Your task to perform on an android device: turn on the 24-hour format for clock Image 0: 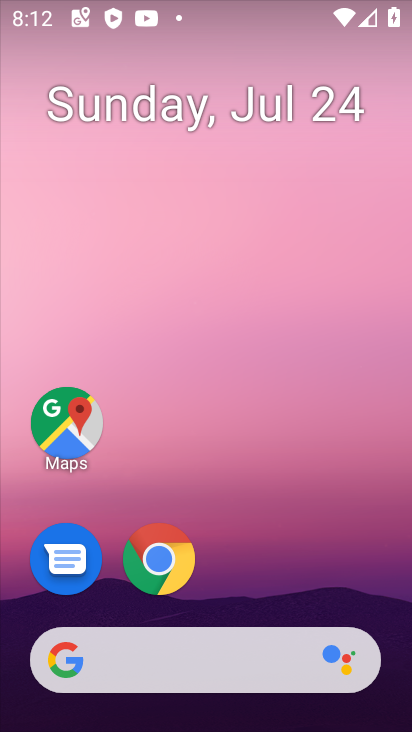
Step 0: press home button
Your task to perform on an android device: turn on the 24-hour format for clock Image 1: 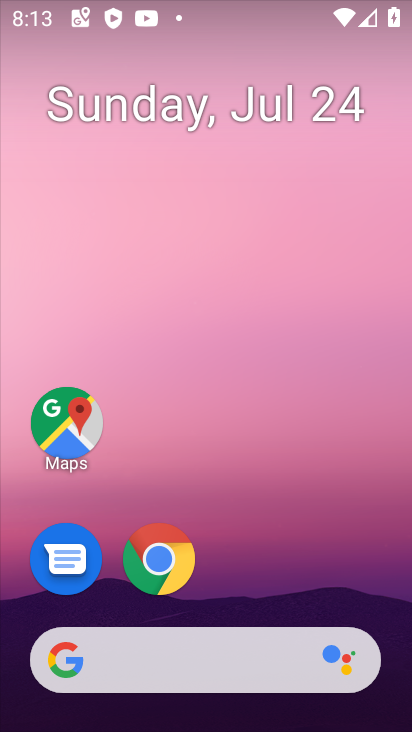
Step 1: drag from (385, 555) to (381, 86)
Your task to perform on an android device: turn on the 24-hour format for clock Image 2: 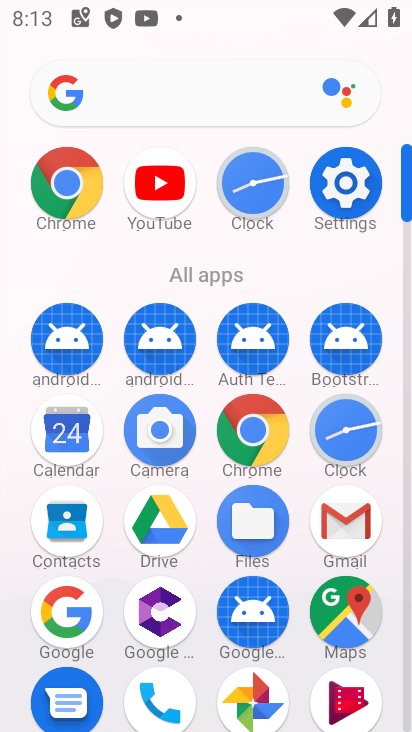
Step 2: click (349, 439)
Your task to perform on an android device: turn on the 24-hour format for clock Image 3: 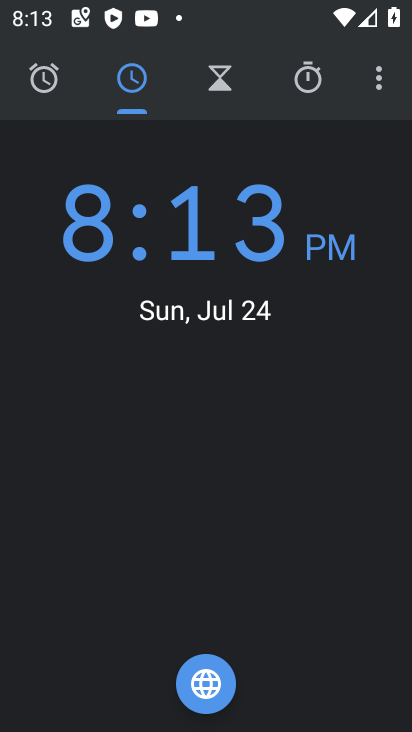
Step 3: click (380, 87)
Your task to perform on an android device: turn on the 24-hour format for clock Image 4: 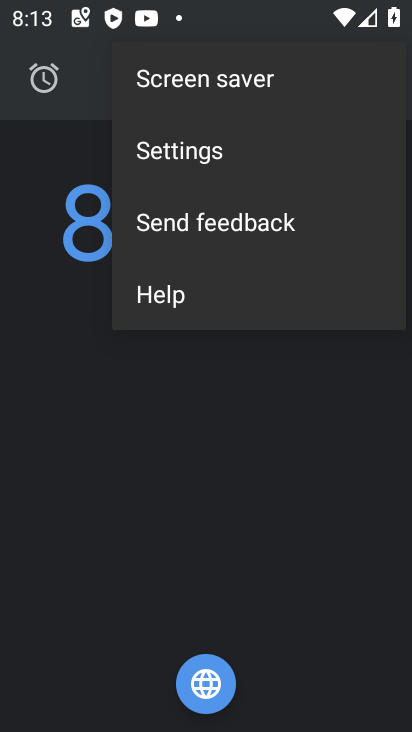
Step 4: click (250, 159)
Your task to perform on an android device: turn on the 24-hour format for clock Image 5: 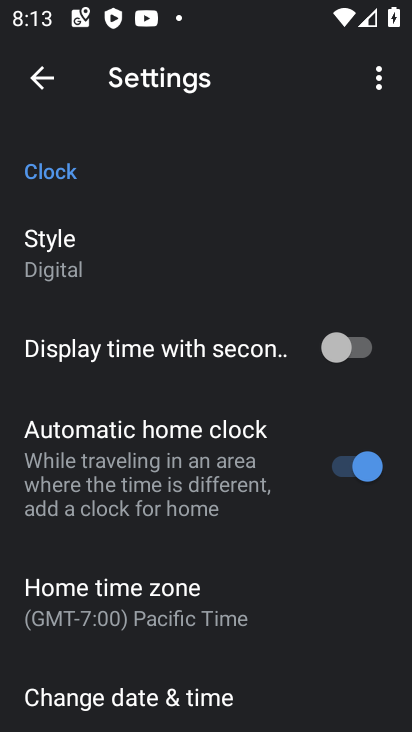
Step 5: drag from (291, 463) to (308, 374)
Your task to perform on an android device: turn on the 24-hour format for clock Image 6: 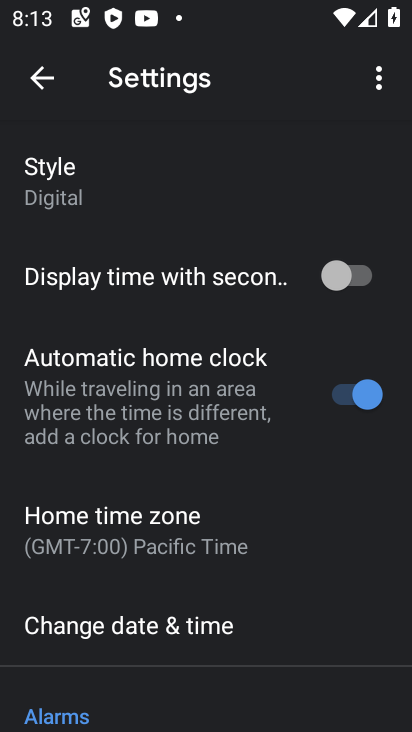
Step 6: drag from (297, 544) to (294, 415)
Your task to perform on an android device: turn on the 24-hour format for clock Image 7: 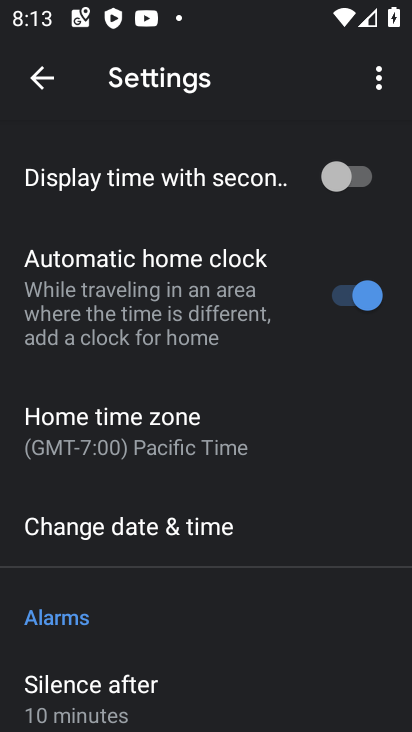
Step 7: drag from (301, 558) to (304, 391)
Your task to perform on an android device: turn on the 24-hour format for clock Image 8: 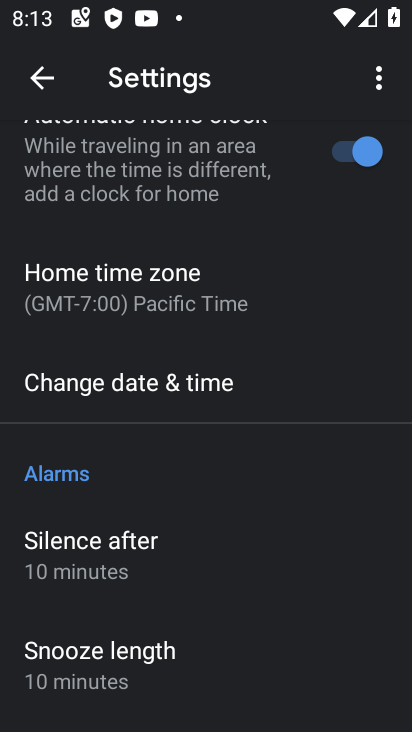
Step 8: drag from (284, 526) to (273, 380)
Your task to perform on an android device: turn on the 24-hour format for clock Image 9: 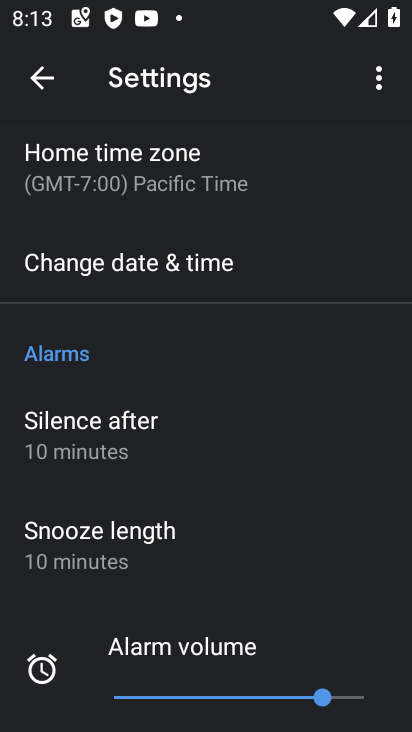
Step 9: click (260, 281)
Your task to perform on an android device: turn on the 24-hour format for clock Image 10: 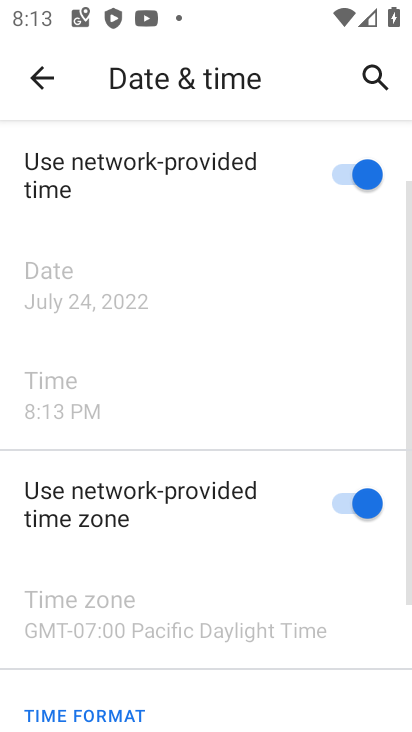
Step 10: drag from (287, 453) to (284, 378)
Your task to perform on an android device: turn on the 24-hour format for clock Image 11: 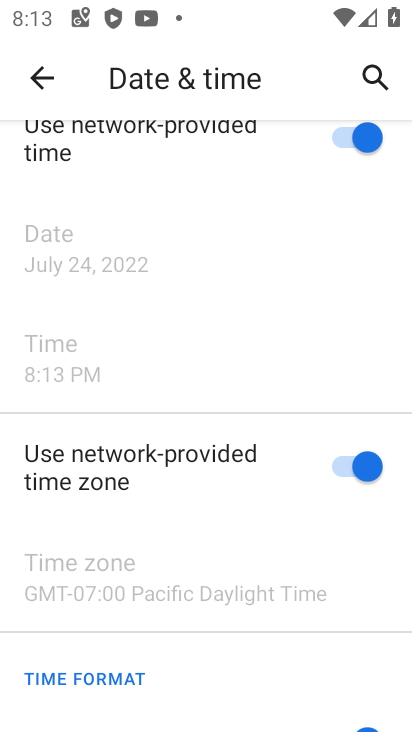
Step 11: drag from (274, 511) to (277, 407)
Your task to perform on an android device: turn on the 24-hour format for clock Image 12: 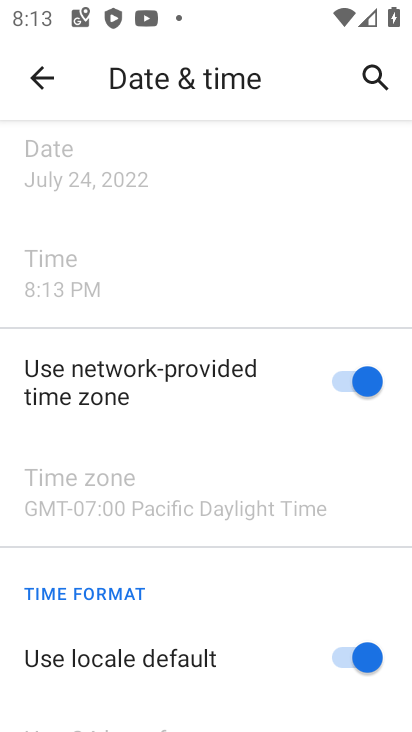
Step 12: drag from (265, 601) to (257, 416)
Your task to perform on an android device: turn on the 24-hour format for clock Image 13: 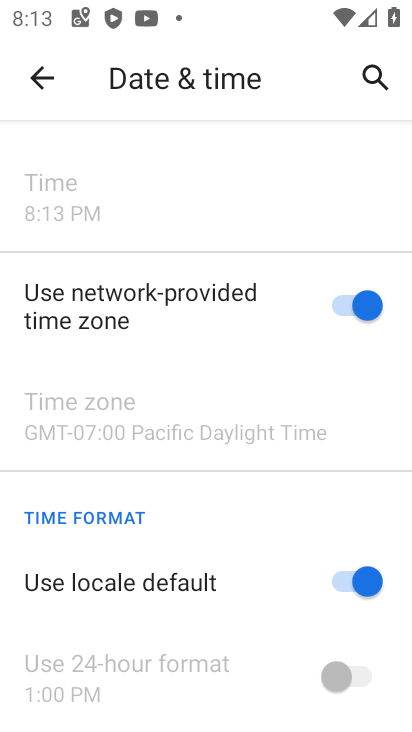
Step 13: click (332, 584)
Your task to perform on an android device: turn on the 24-hour format for clock Image 14: 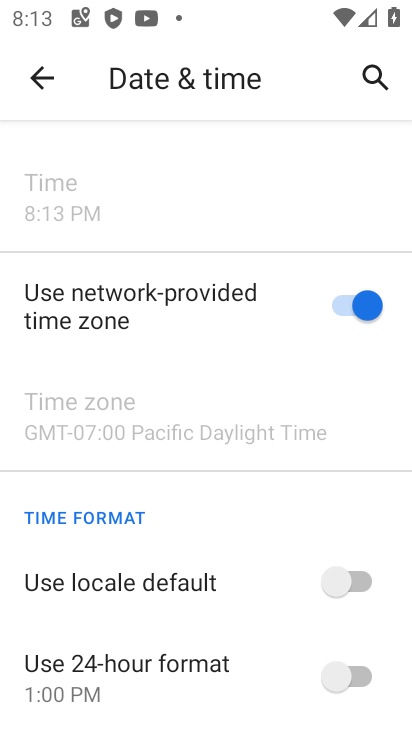
Step 14: click (329, 668)
Your task to perform on an android device: turn on the 24-hour format for clock Image 15: 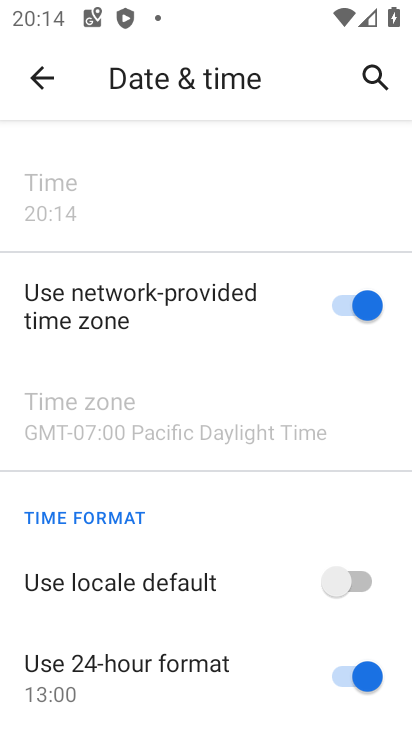
Step 15: task complete